Your task to perform on an android device: Open internet settings Image 0: 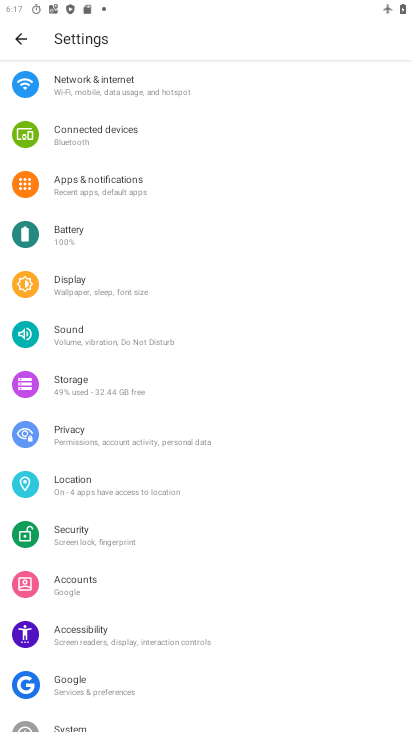
Step 0: click (205, 89)
Your task to perform on an android device: Open internet settings Image 1: 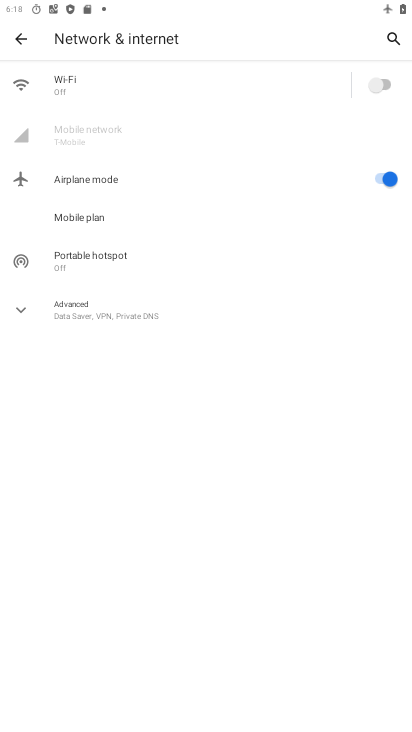
Step 1: task complete